Your task to perform on an android device: Go to Android settings Image 0: 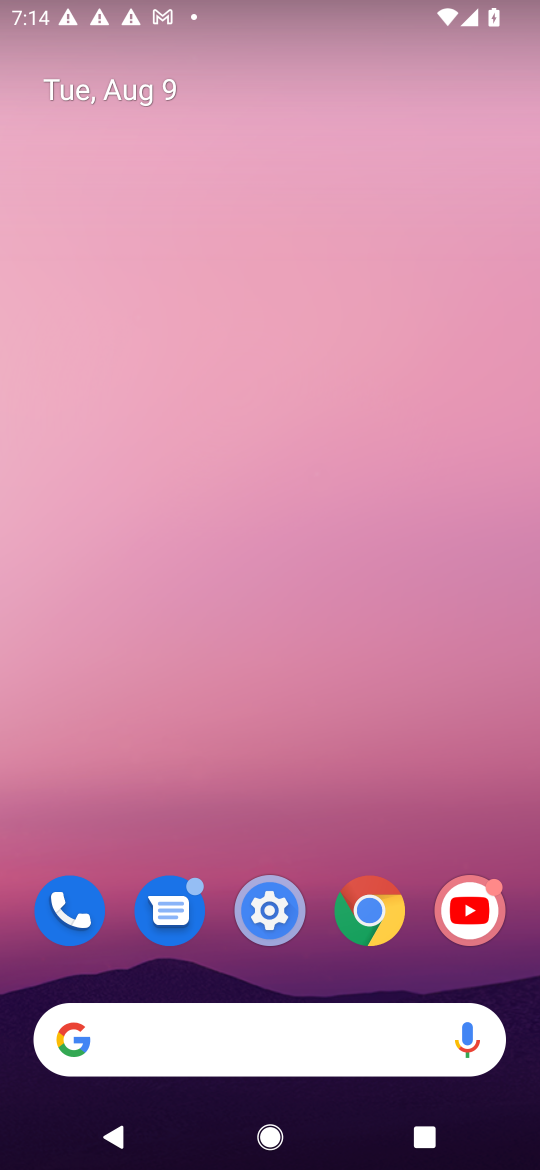
Step 0: drag from (328, 959) to (365, 286)
Your task to perform on an android device: Go to Android settings Image 1: 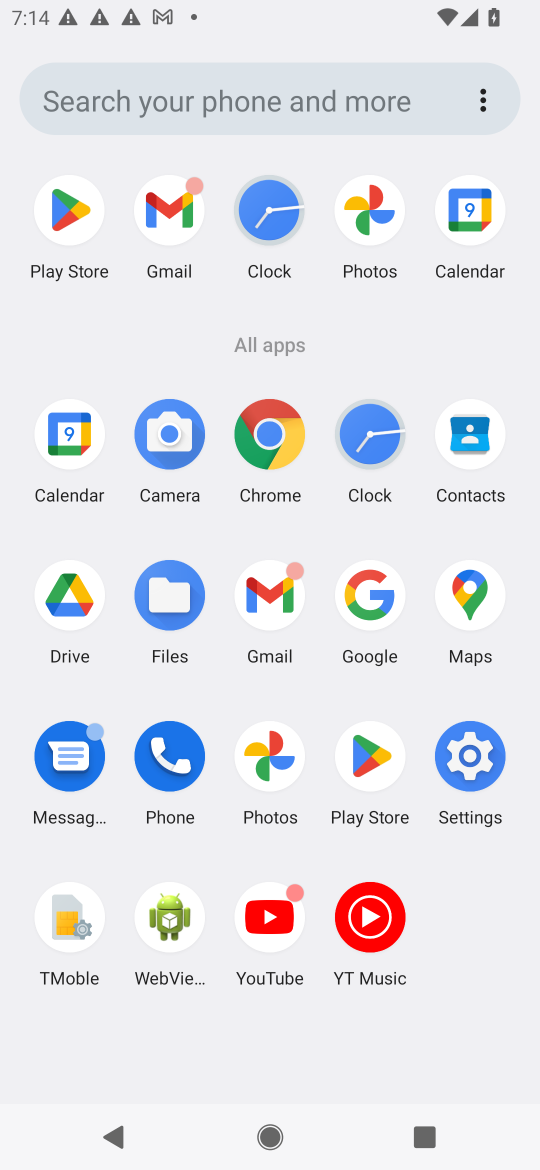
Step 1: click (484, 774)
Your task to perform on an android device: Go to Android settings Image 2: 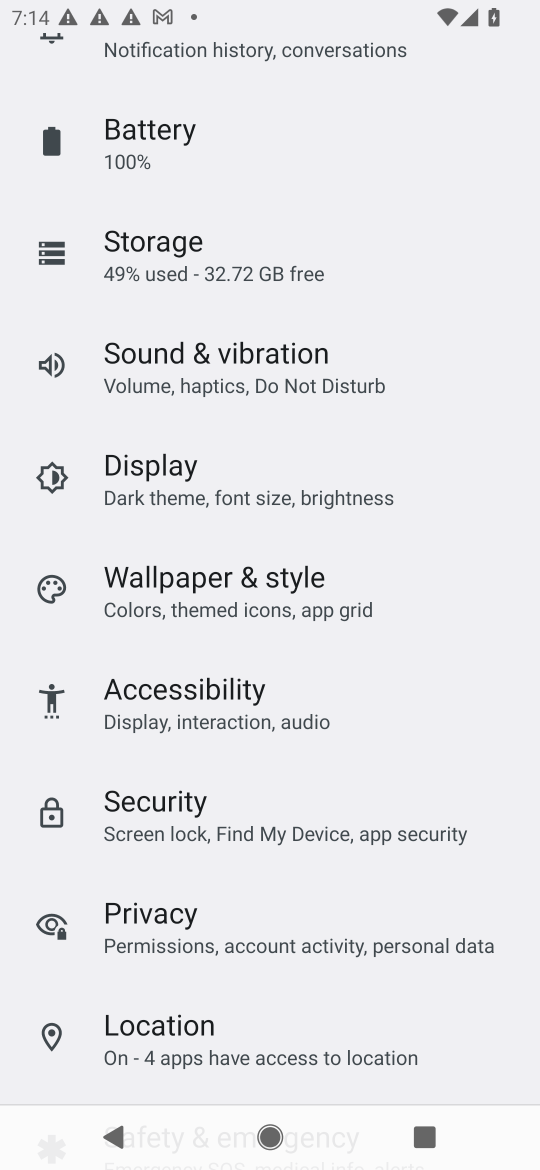
Step 2: drag from (283, 1006) to (534, 172)
Your task to perform on an android device: Go to Android settings Image 3: 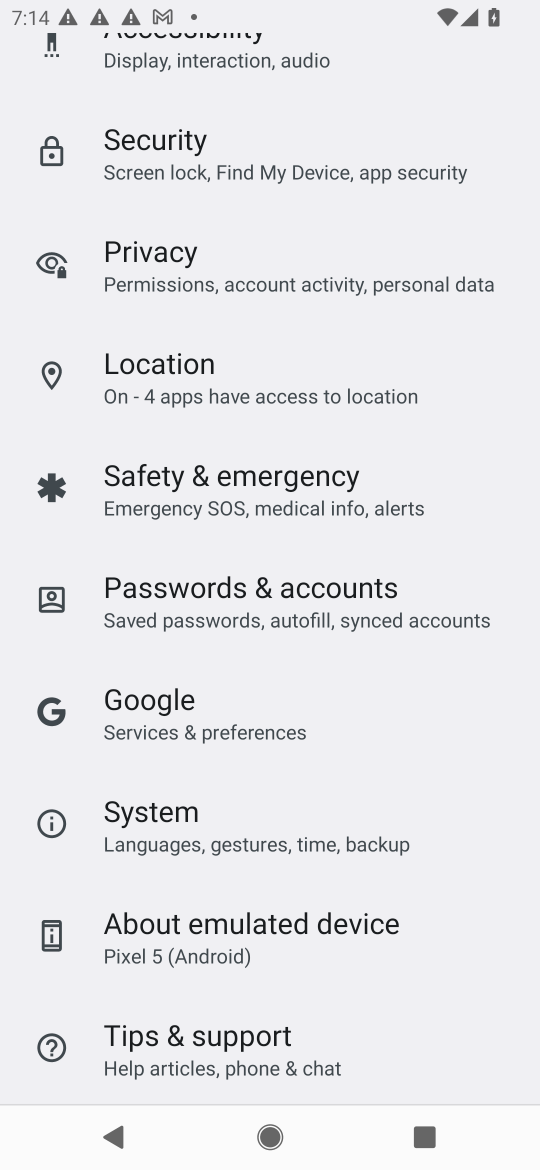
Step 3: drag from (320, 943) to (302, 37)
Your task to perform on an android device: Go to Android settings Image 4: 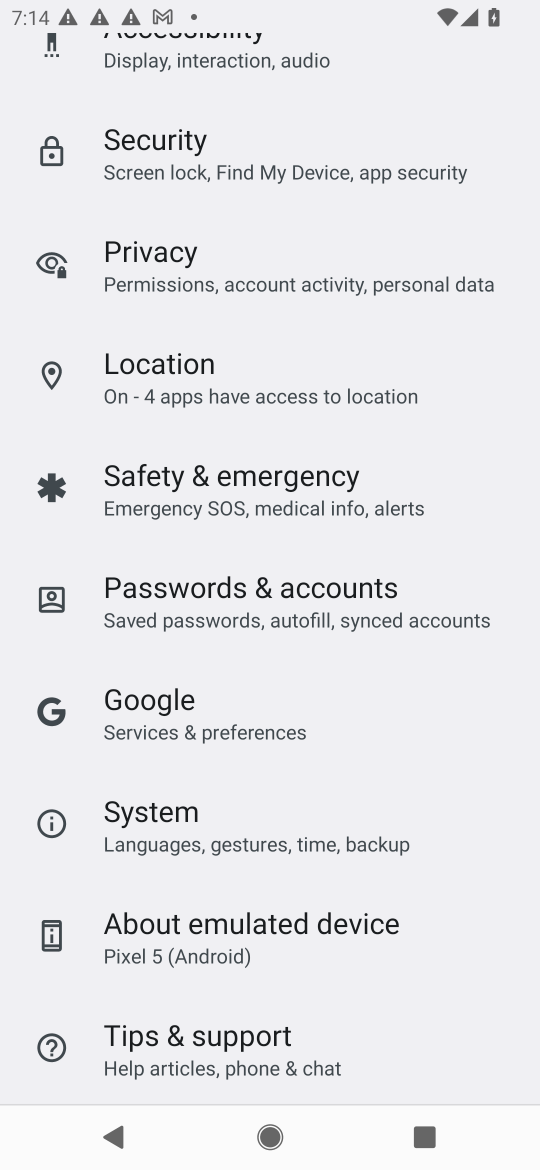
Step 4: drag from (209, 783) to (244, 114)
Your task to perform on an android device: Go to Android settings Image 5: 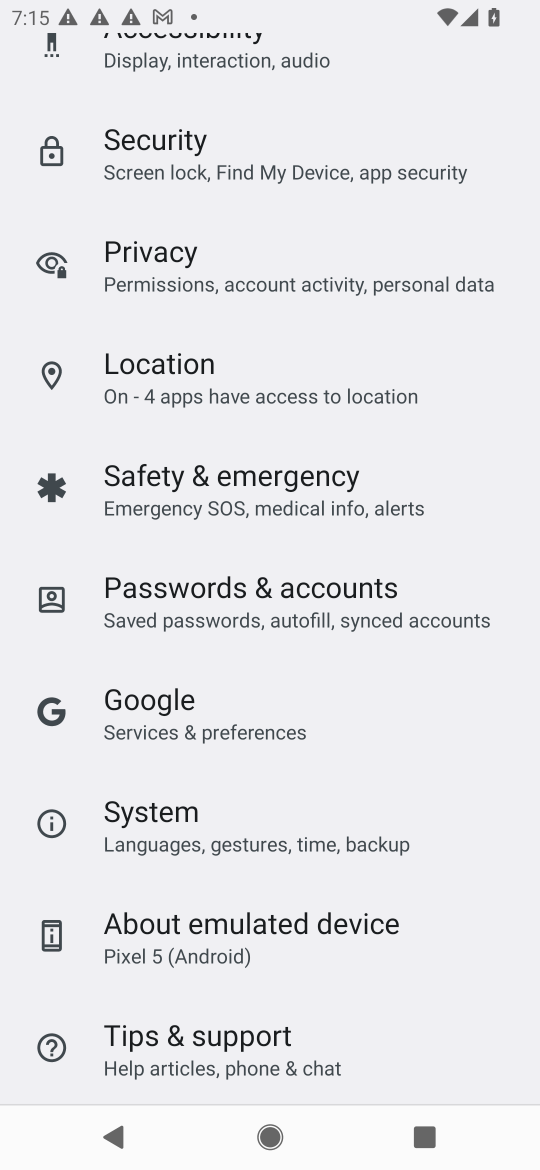
Step 5: drag from (224, 939) to (224, 752)
Your task to perform on an android device: Go to Android settings Image 6: 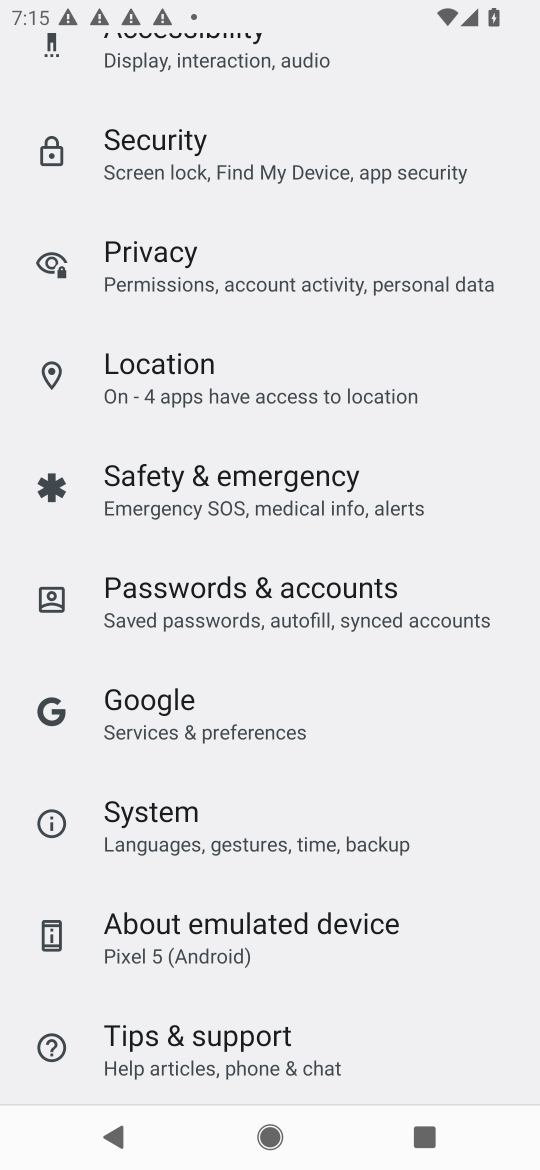
Step 6: click (287, 948)
Your task to perform on an android device: Go to Android settings Image 7: 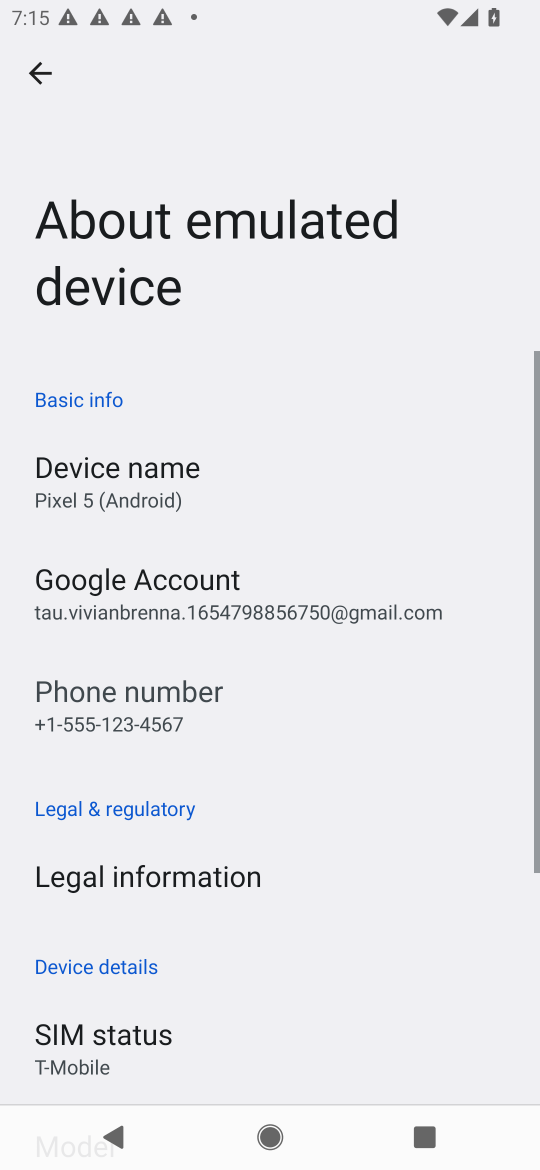
Step 7: drag from (195, 986) to (256, 359)
Your task to perform on an android device: Go to Android settings Image 8: 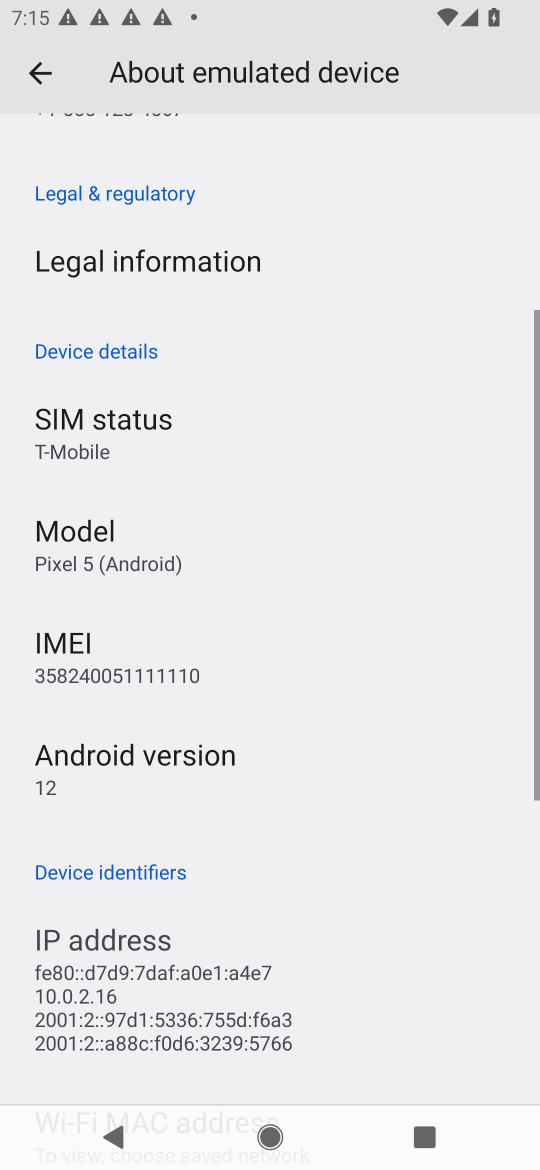
Step 8: click (212, 776)
Your task to perform on an android device: Go to Android settings Image 9: 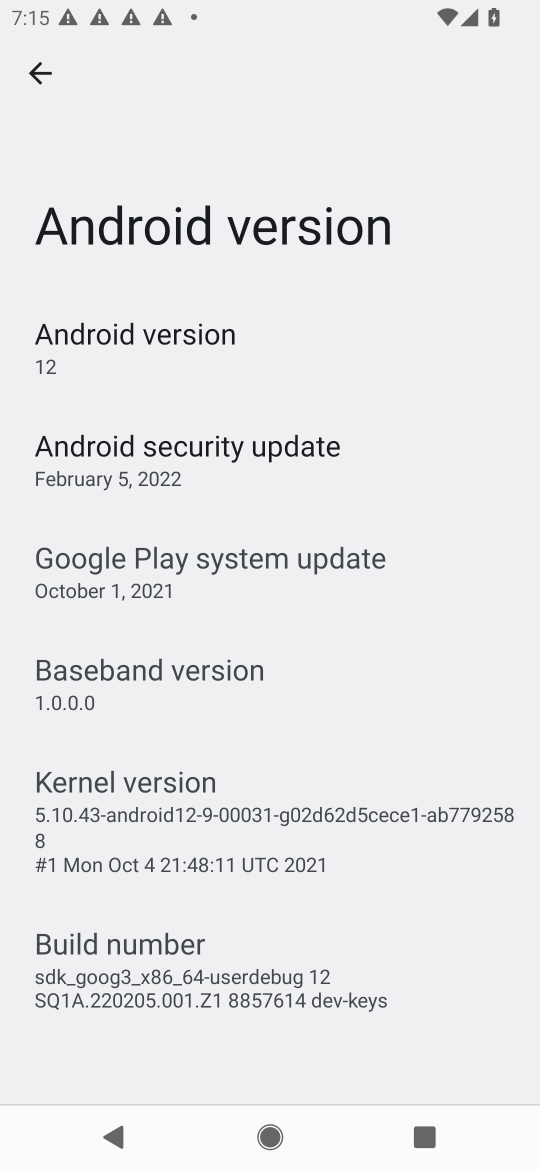
Step 9: task complete